Your task to perform on an android device: Go to CNN.com Image 0: 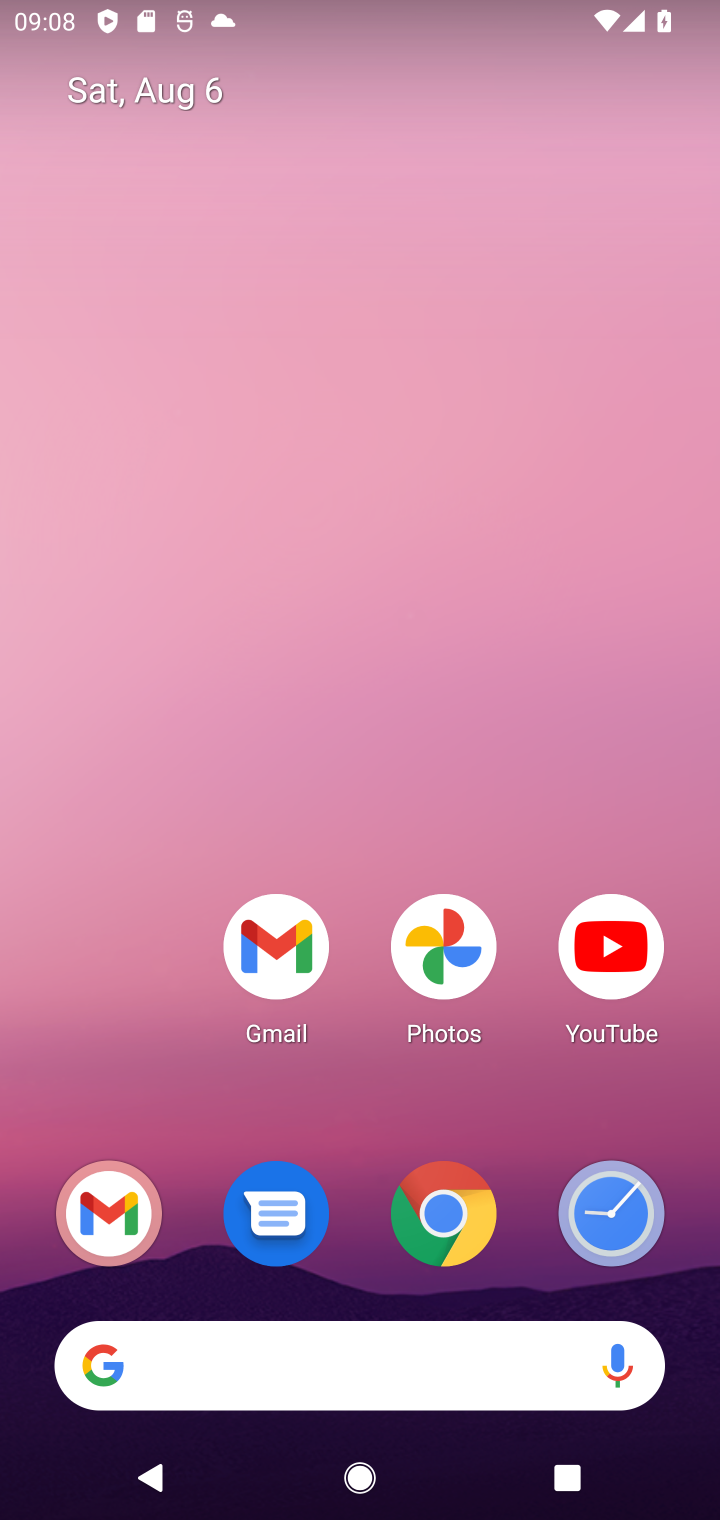
Step 0: drag from (410, 1303) to (492, 177)
Your task to perform on an android device: Go to CNN.com Image 1: 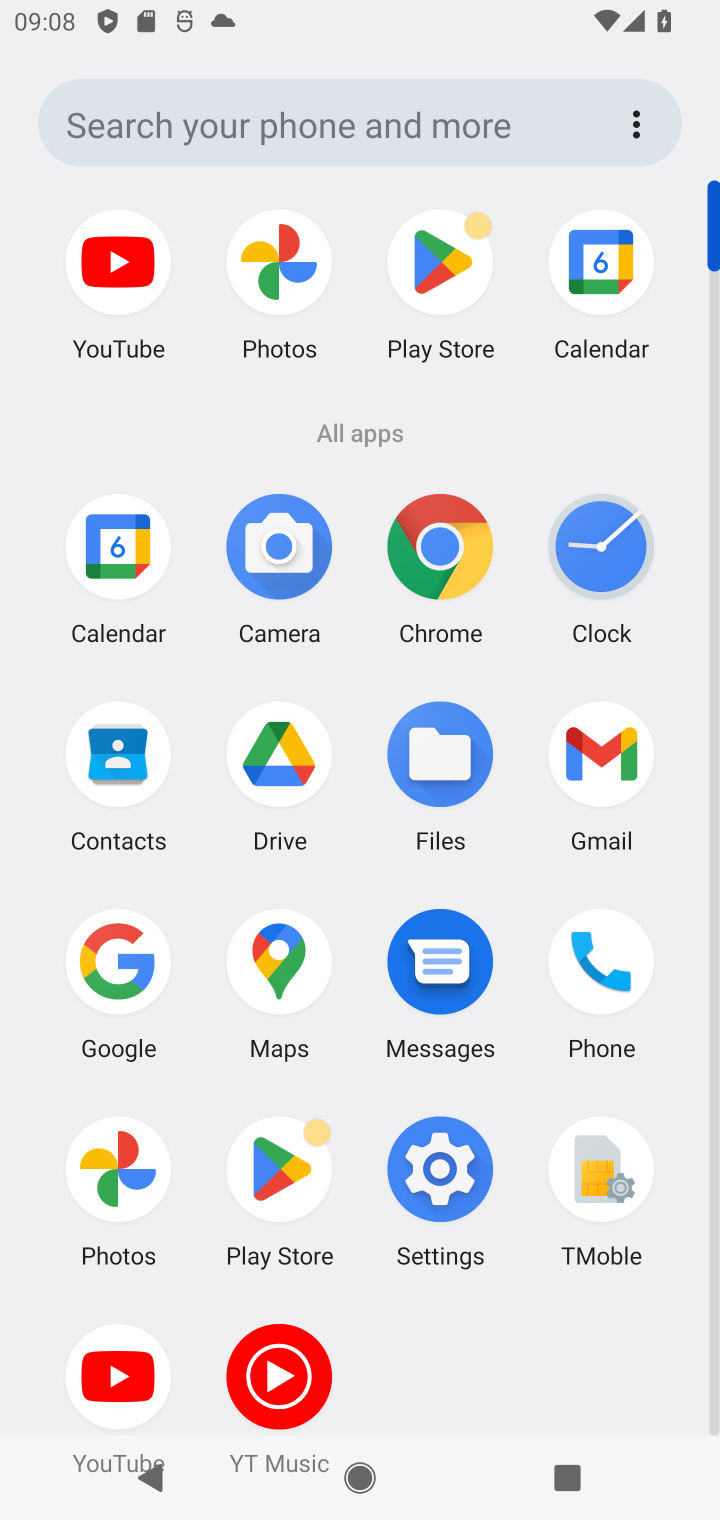
Step 1: click (465, 568)
Your task to perform on an android device: Go to CNN.com Image 2: 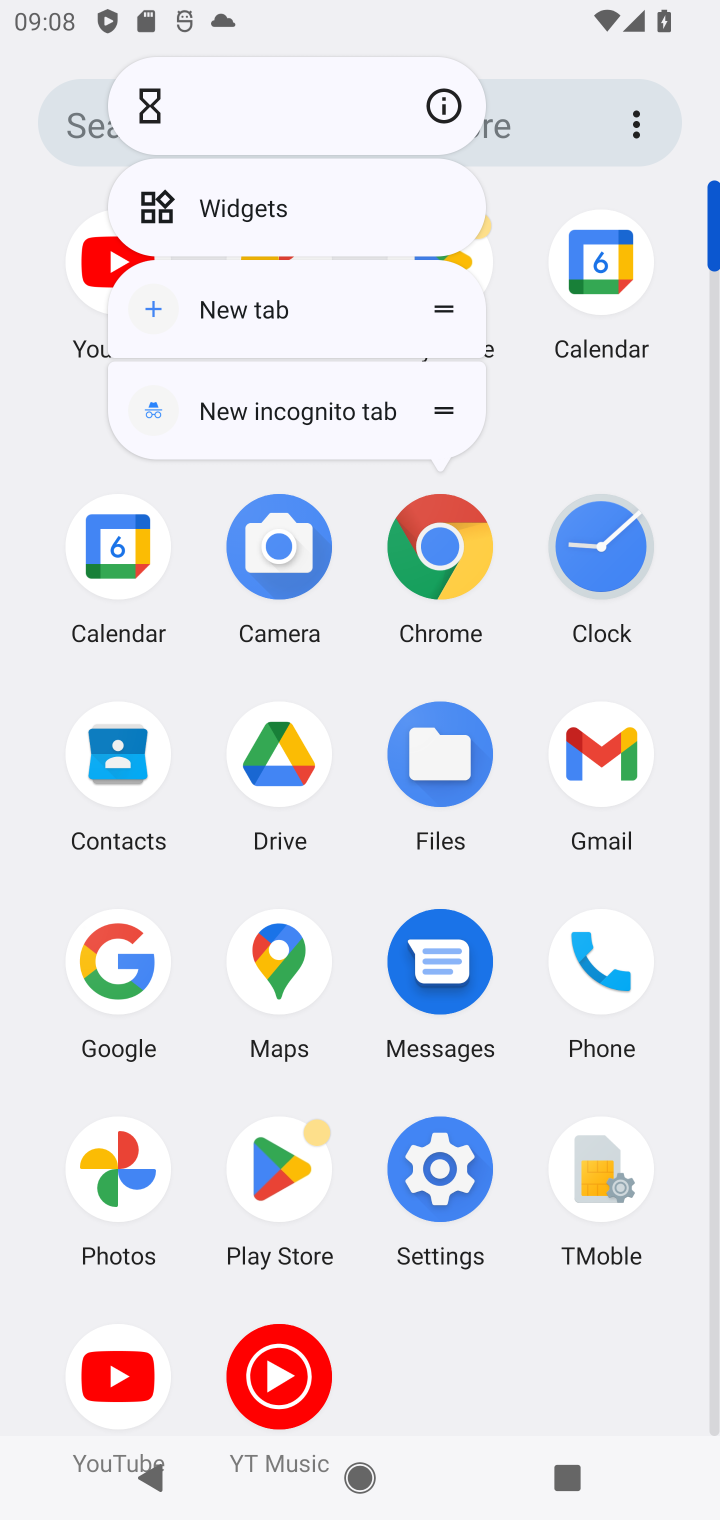
Step 2: click (465, 561)
Your task to perform on an android device: Go to CNN.com Image 3: 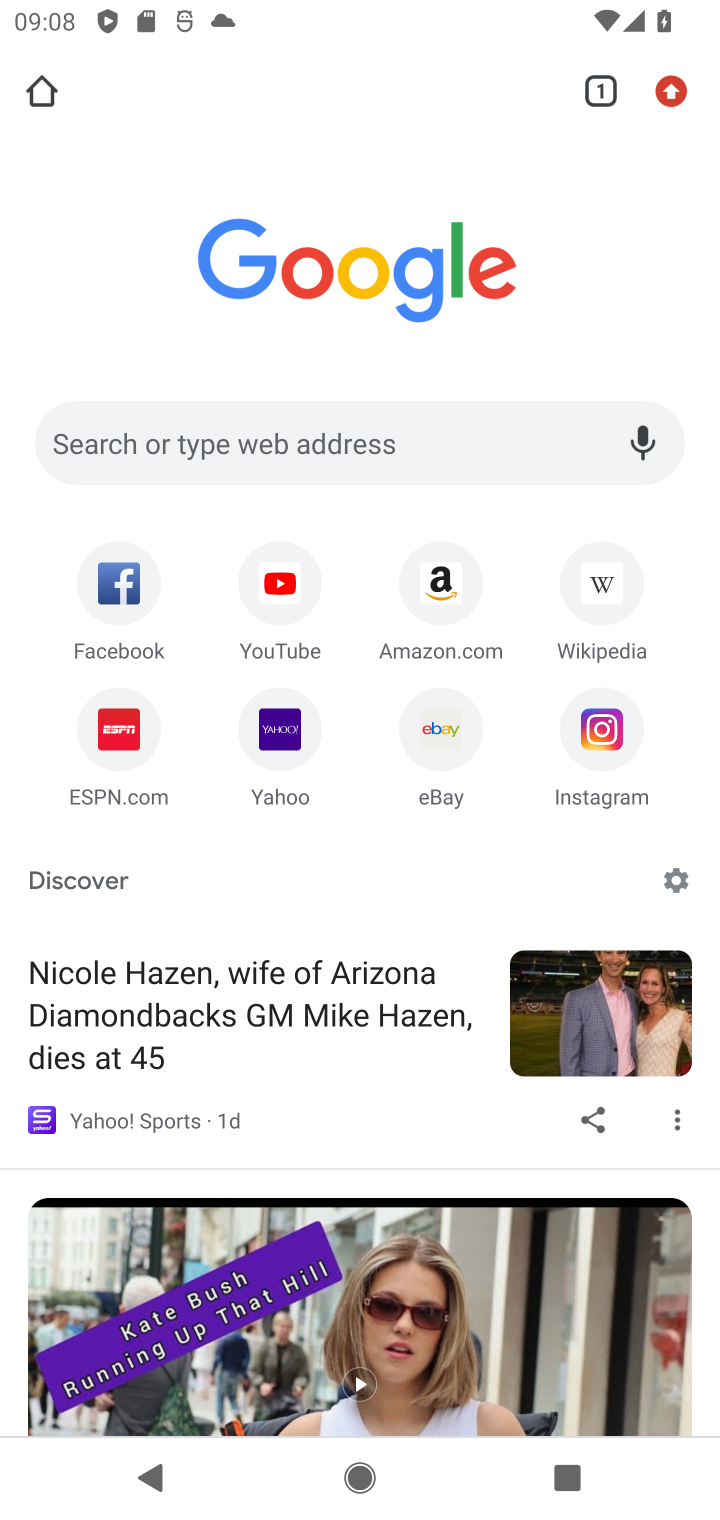
Step 3: click (211, 433)
Your task to perform on an android device: Go to CNN.com Image 4: 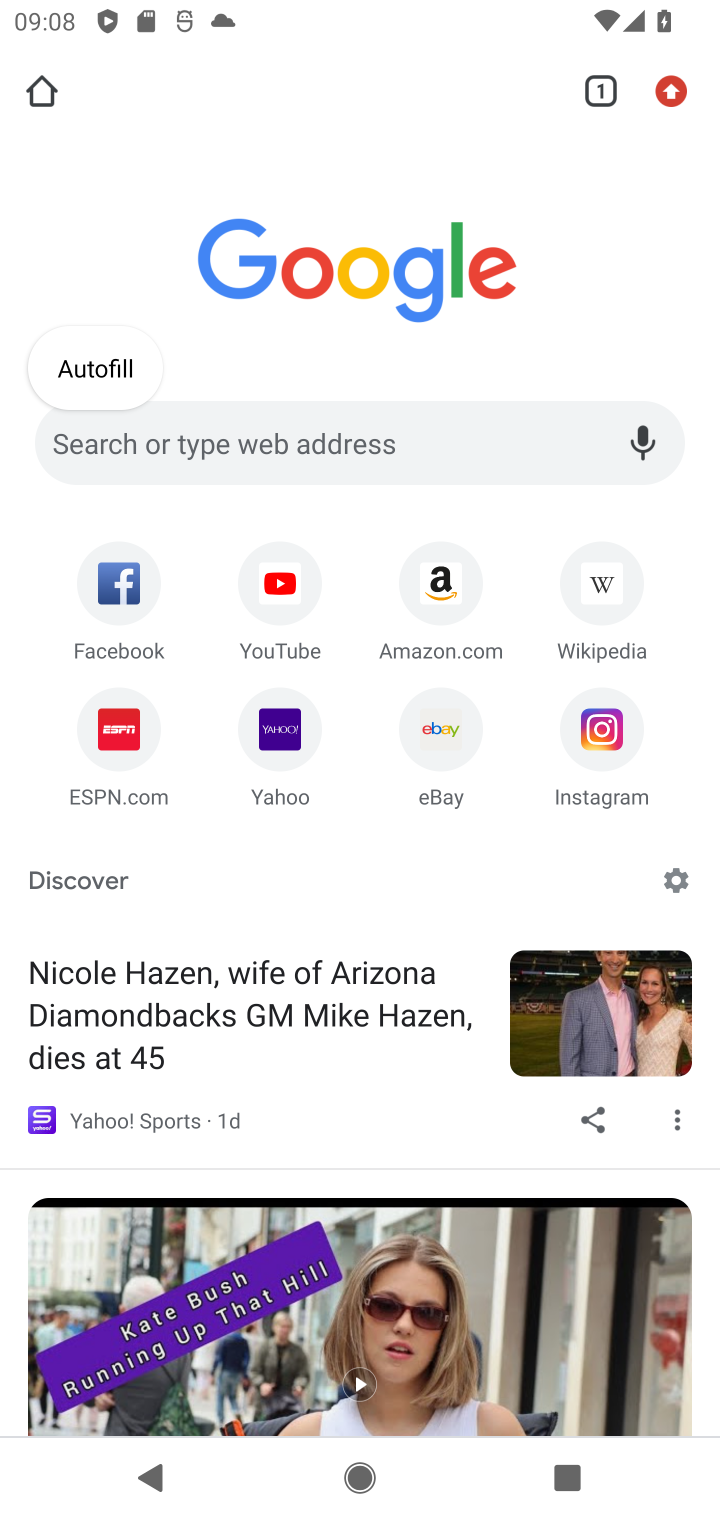
Step 4: click (113, 368)
Your task to perform on an android device: Go to CNN.com Image 5: 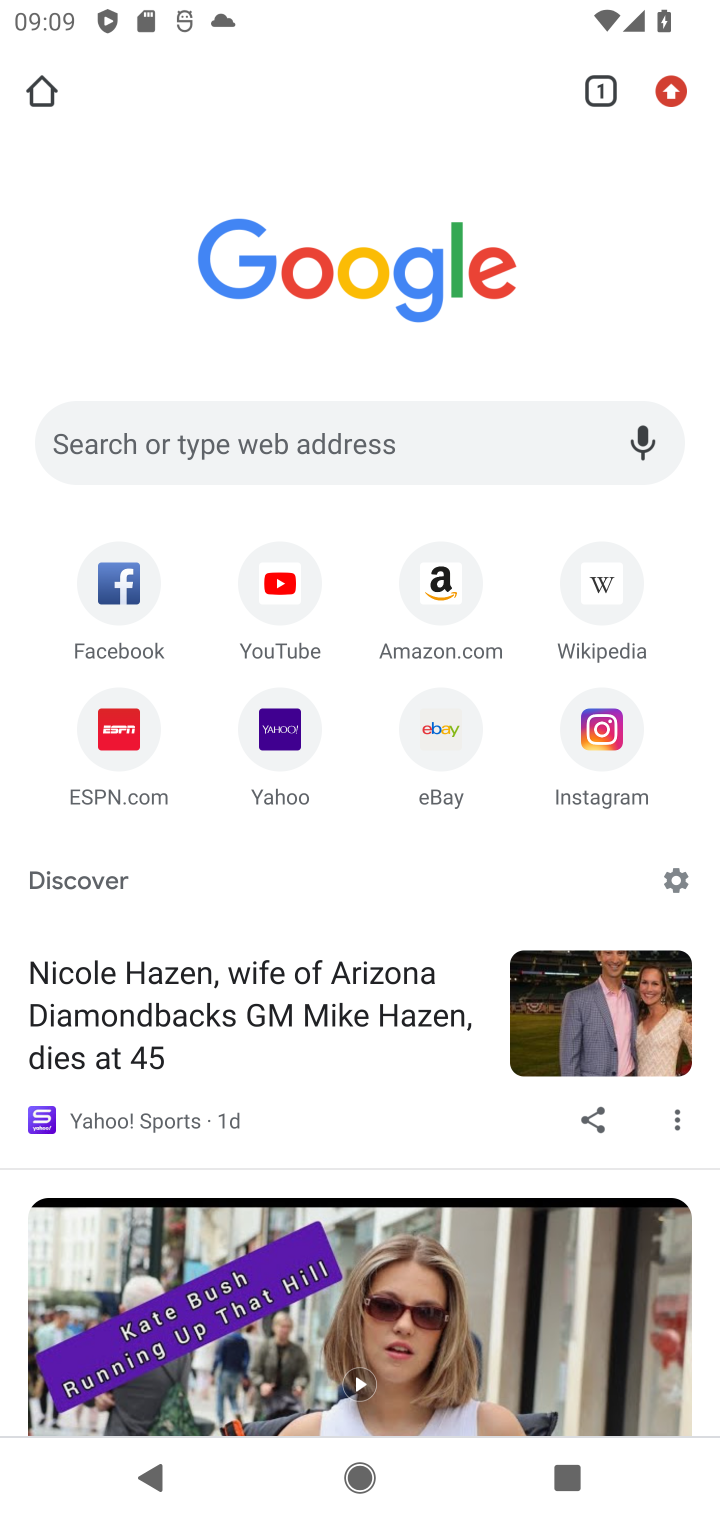
Step 5: click (389, 435)
Your task to perform on an android device: Go to CNN.com Image 6: 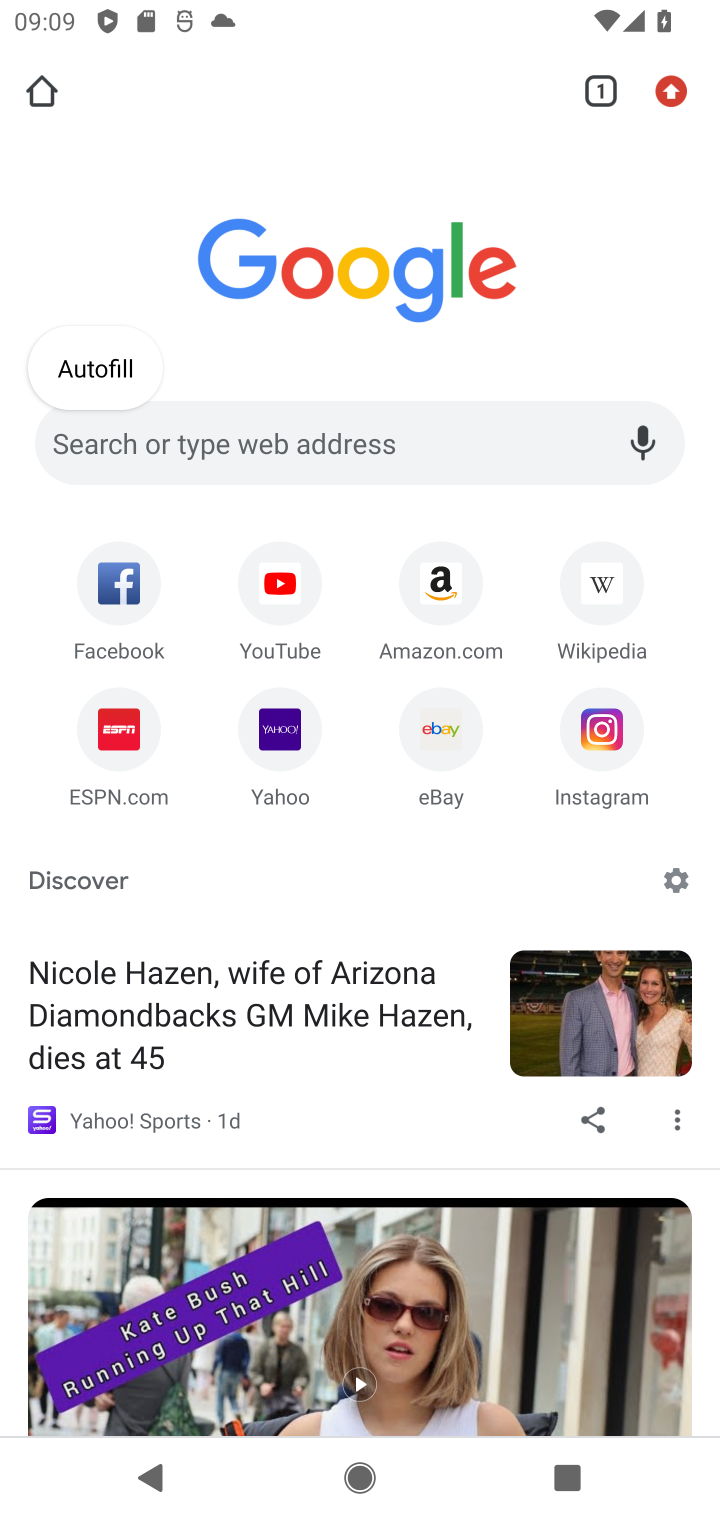
Step 6: type "CNN.com"
Your task to perform on an android device: Go to CNN.com Image 7: 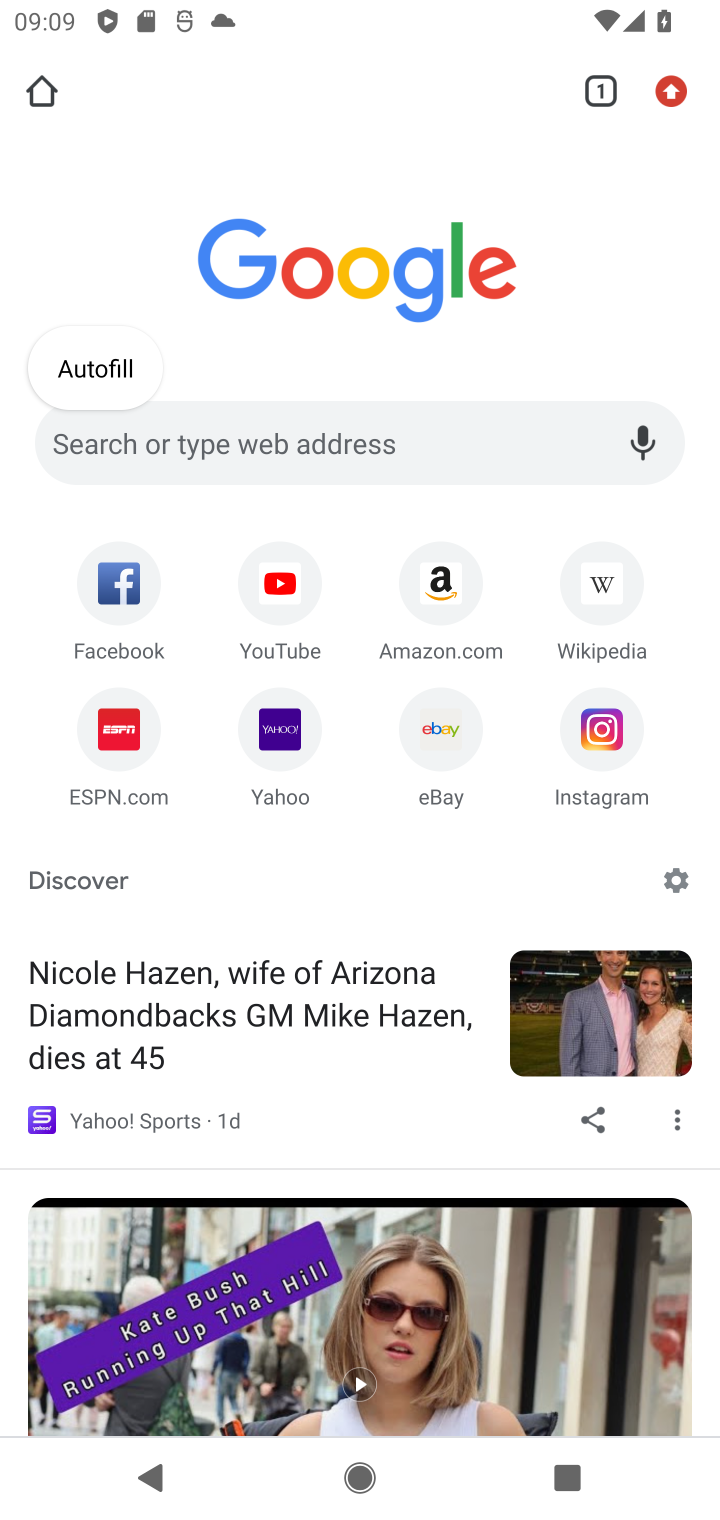
Step 7: press enter
Your task to perform on an android device: Go to CNN.com Image 8: 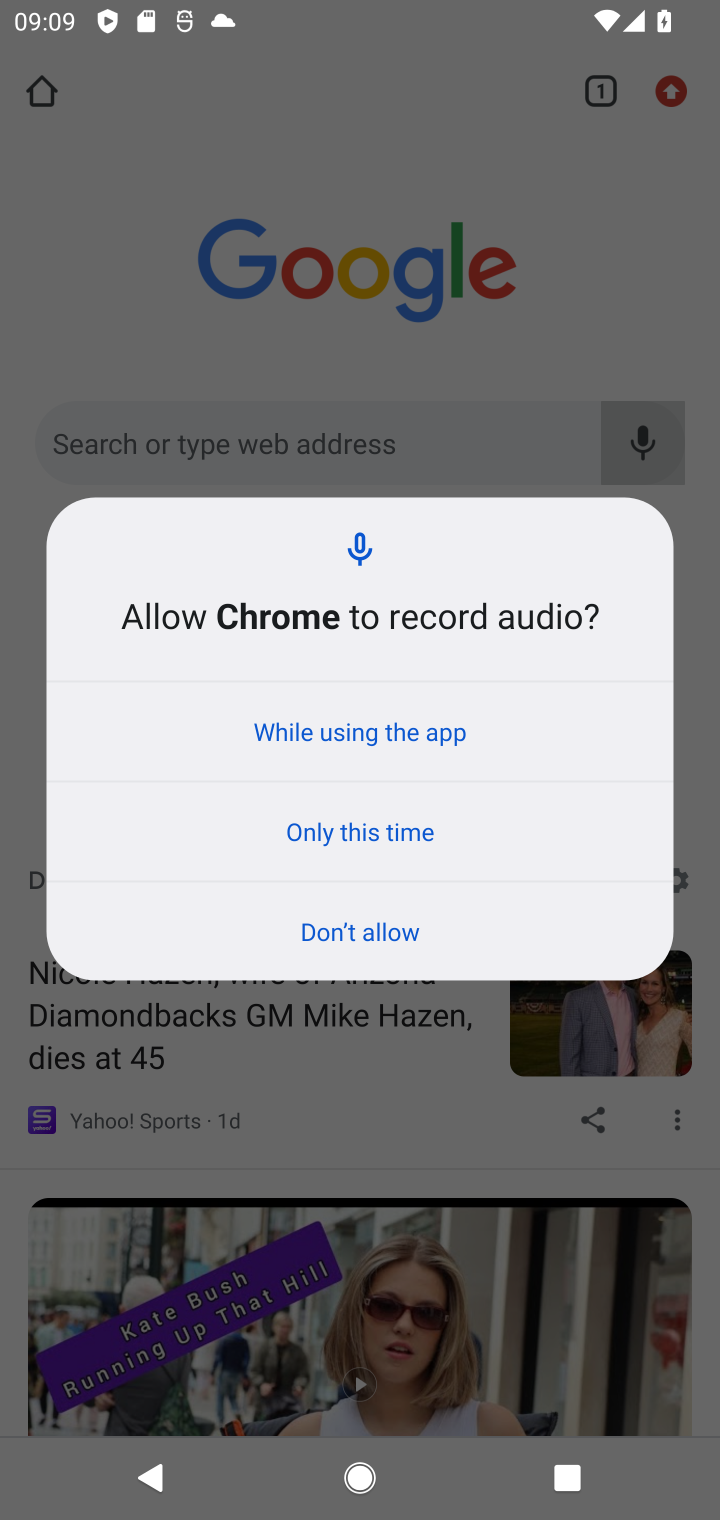
Step 8: click (417, 940)
Your task to perform on an android device: Go to CNN.com Image 9: 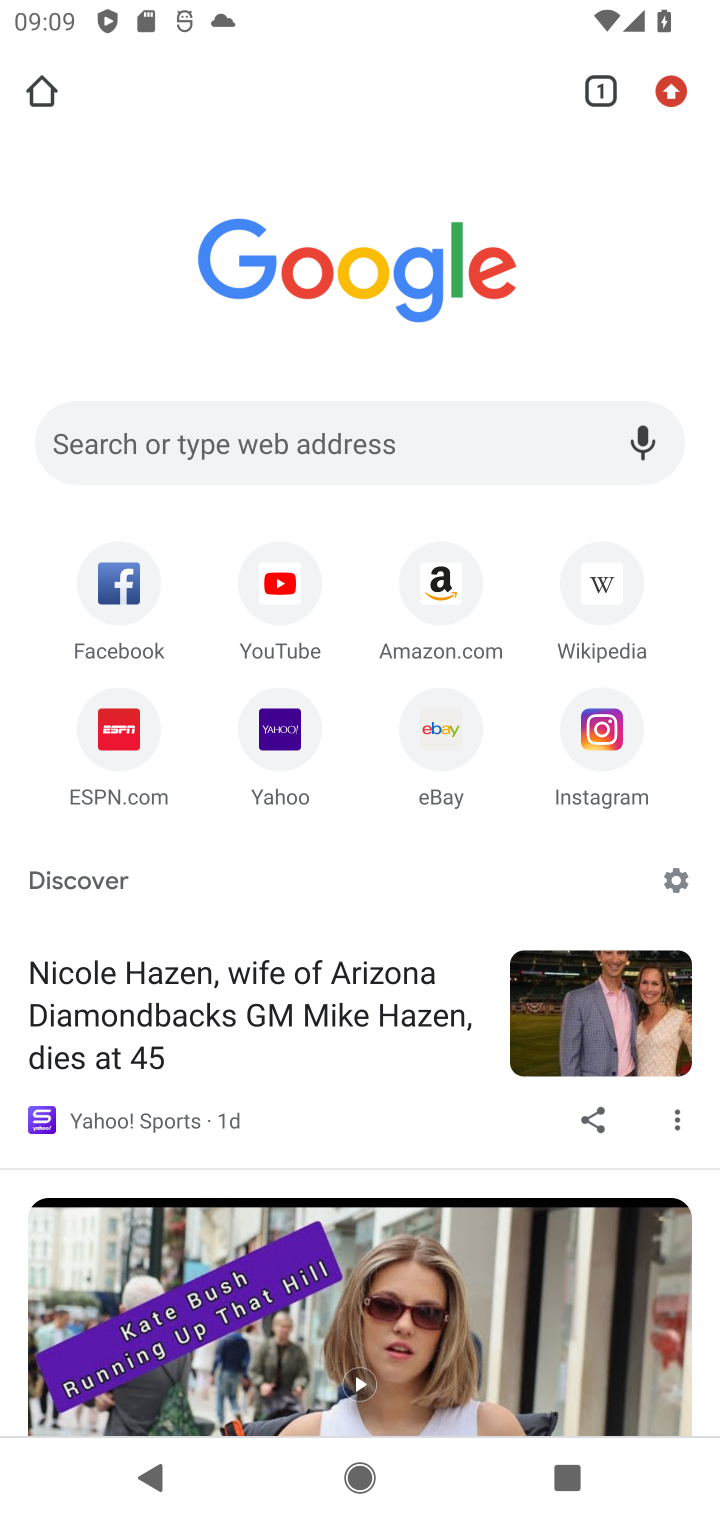
Step 9: click (286, 437)
Your task to perform on an android device: Go to CNN.com Image 10: 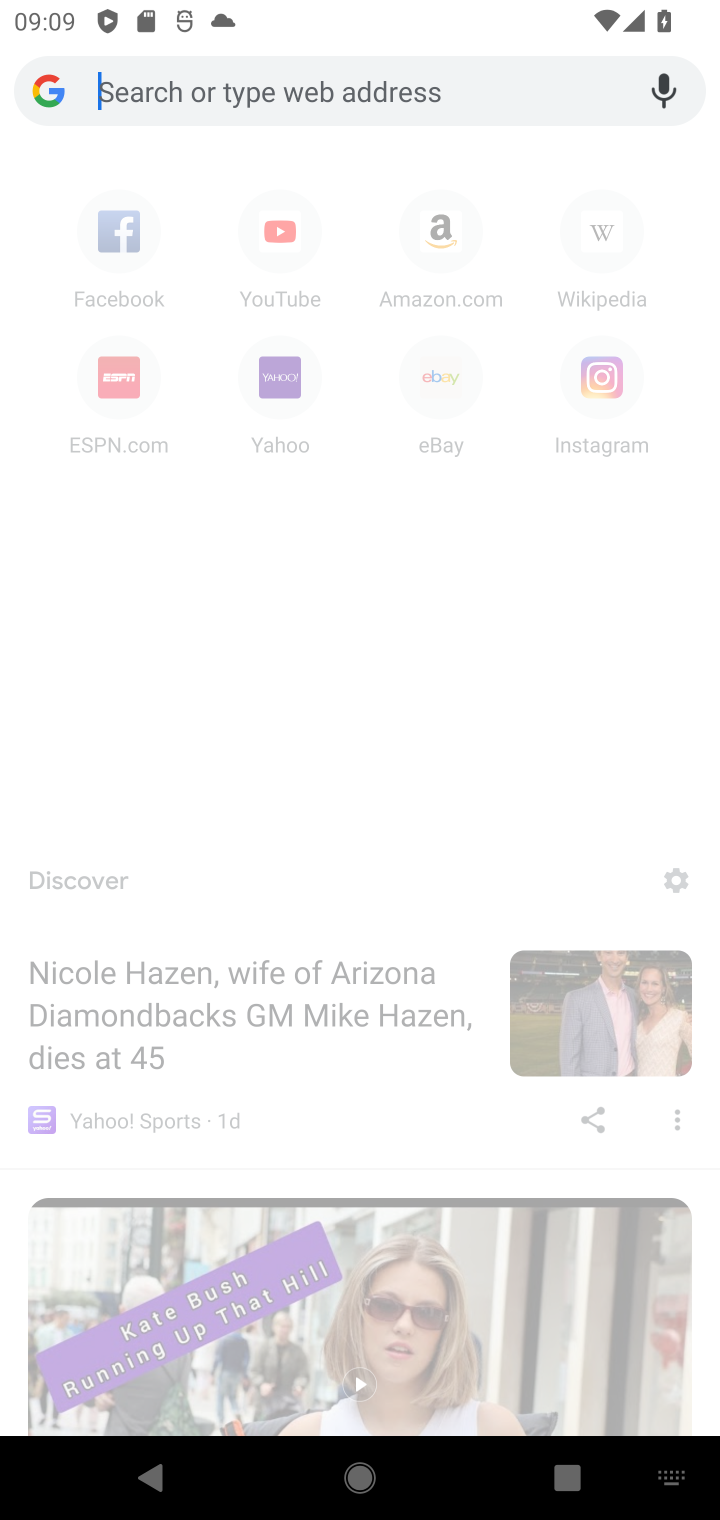
Step 10: type "CNN.com"
Your task to perform on an android device: Go to CNN.com Image 11: 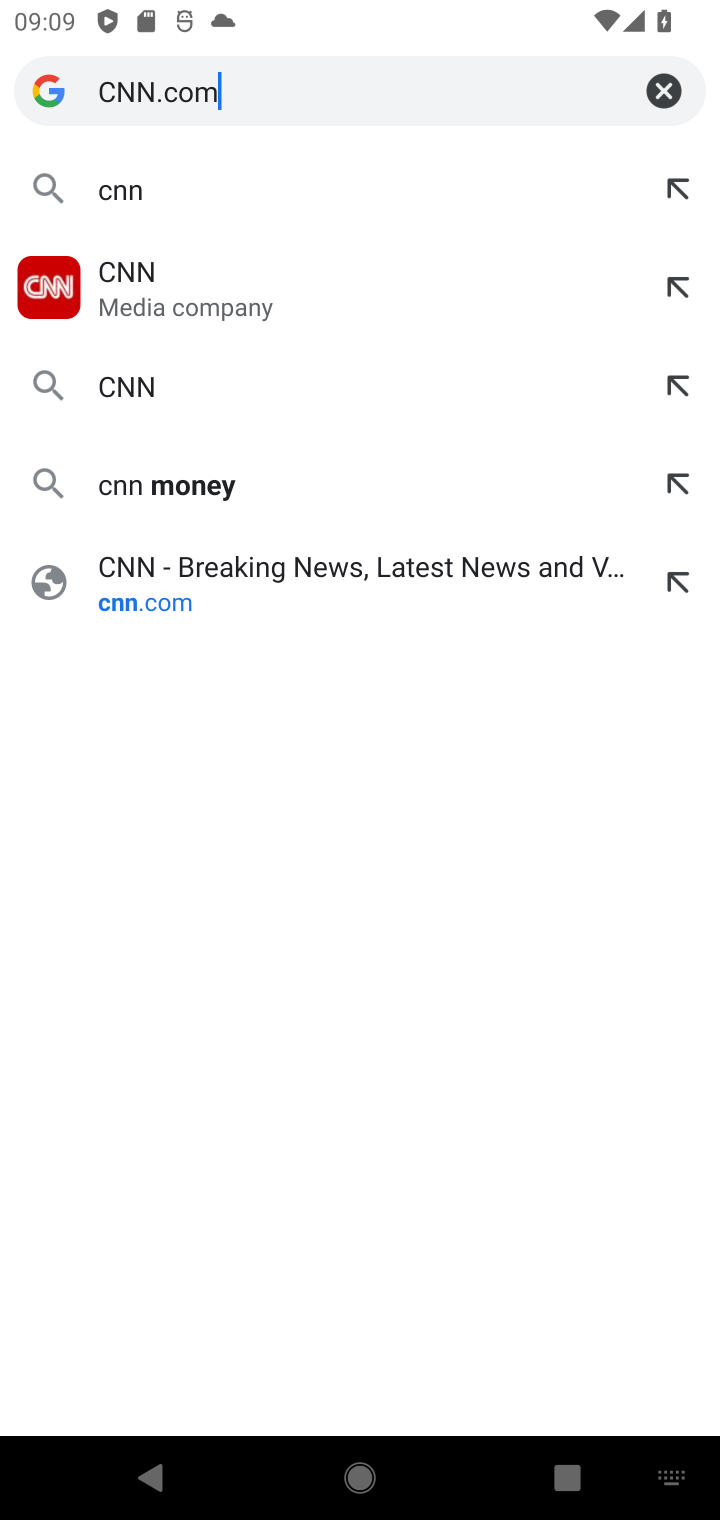
Step 11: press enter
Your task to perform on an android device: Go to CNN.com Image 12: 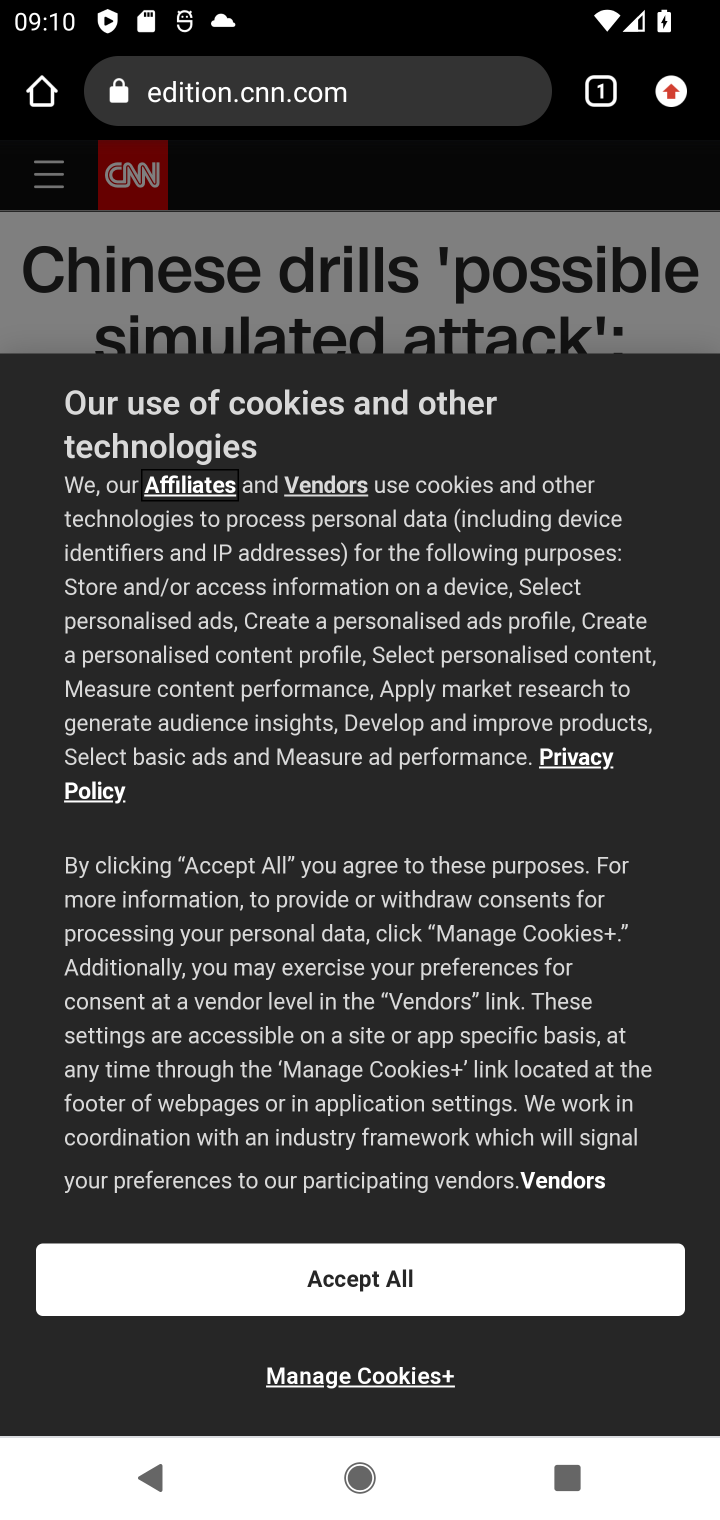
Step 12: task complete